Your task to perform on an android device: turn off data saver in the chrome app Image 0: 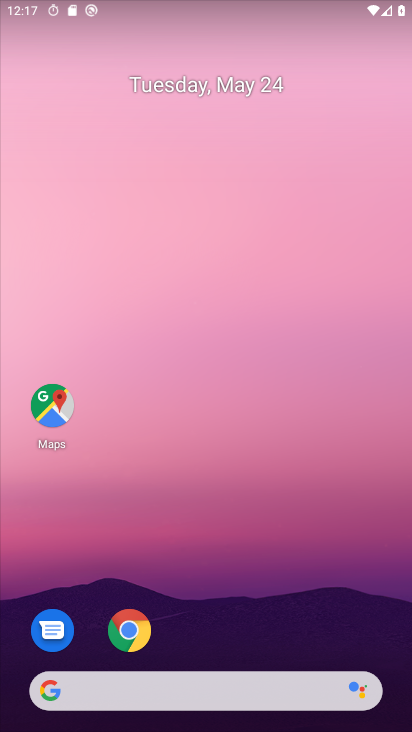
Step 0: drag from (221, 635) to (279, 69)
Your task to perform on an android device: turn off data saver in the chrome app Image 1: 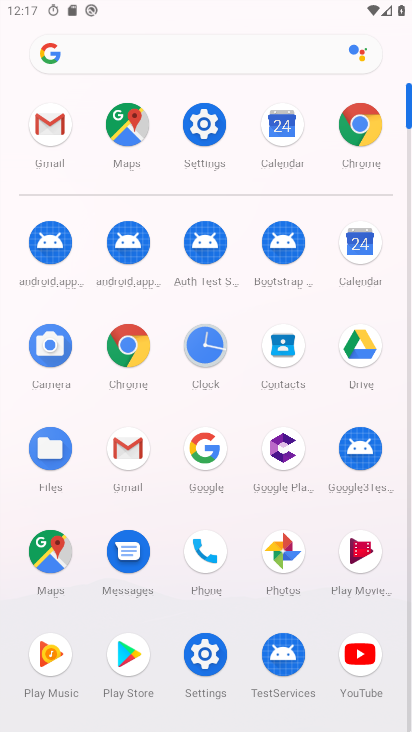
Step 1: click (117, 335)
Your task to perform on an android device: turn off data saver in the chrome app Image 2: 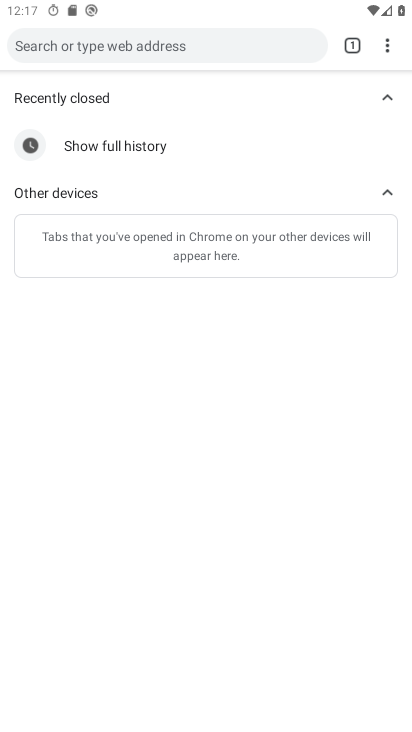
Step 2: click (385, 41)
Your task to perform on an android device: turn off data saver in the chrome app Image 3: 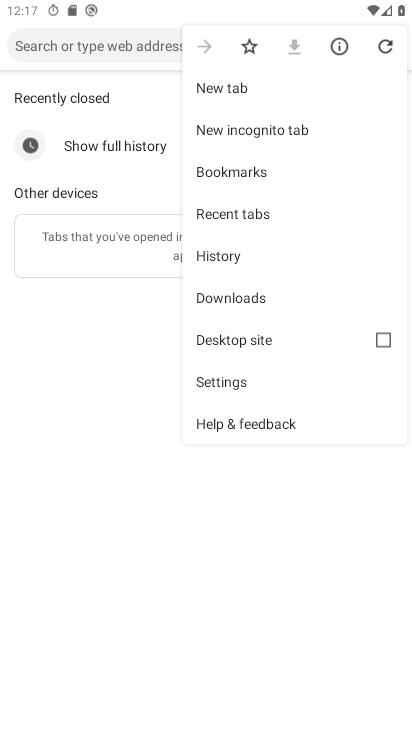
Step 3: click (245, 383)
Your task to perform on an android device: turn off data saver in the chrome app Image 4: 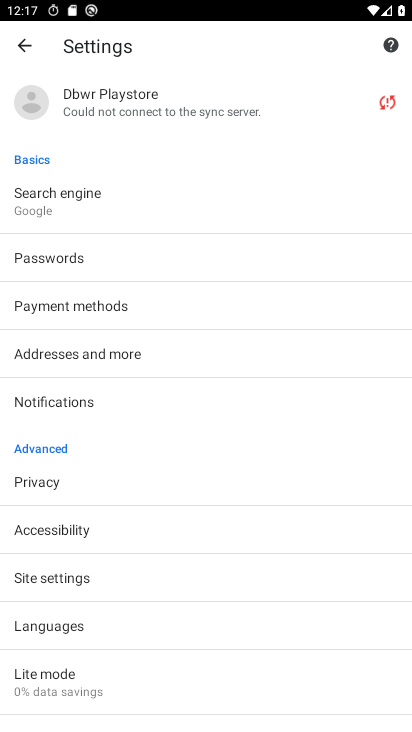
Step 4: click (81, 682)
Your task to perform on an android device: turn off data saver in the chrome app Image 5: 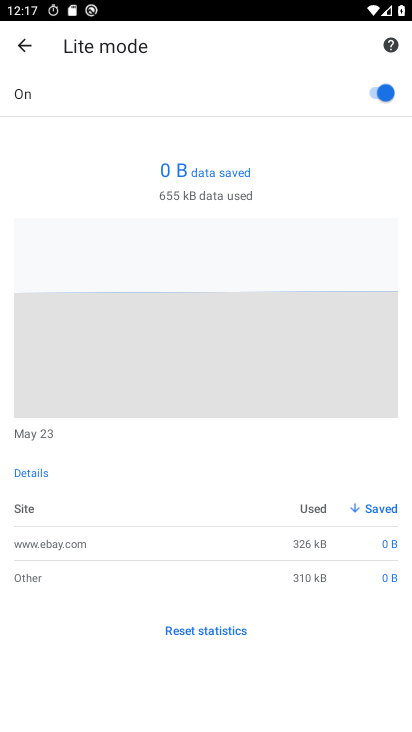
Step 5: click (366, 99)
Your task to perform on an android device: turn off data saver in the chrome app Image 6: 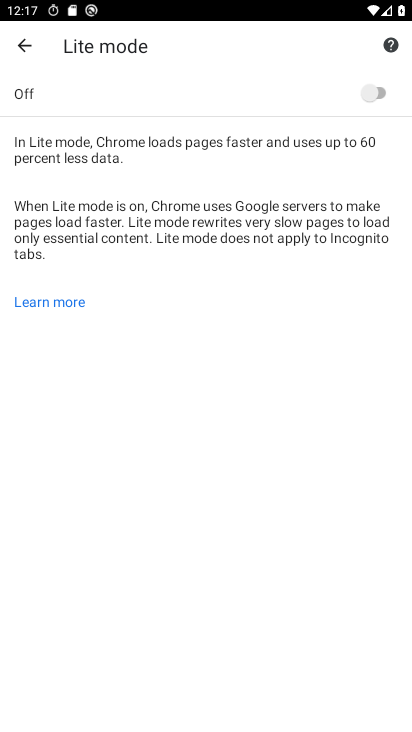
Step 6: task complete